Your task to perform on an android device: Go to ESPN.com Image 0: 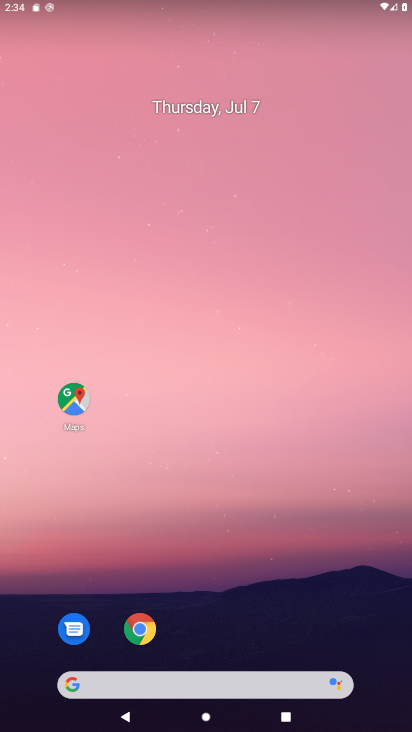
Step 0: click (132, 628)
Your task to perform on an android device: Go to ESPN.com Image 1: 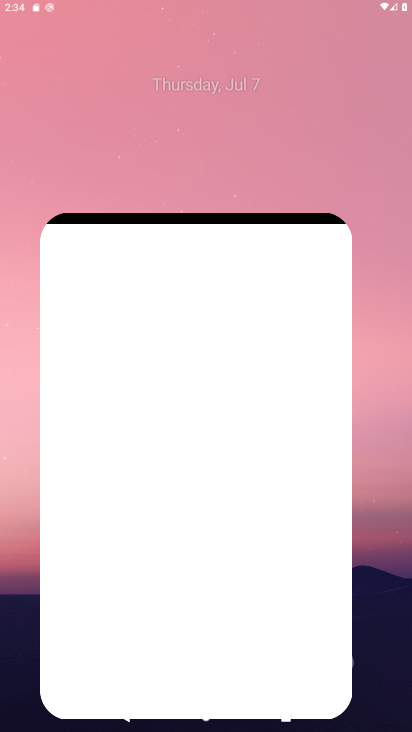
Step 1: click (132, 628)
Your task to perform on an android device: Go to ESPN.com Image 2: 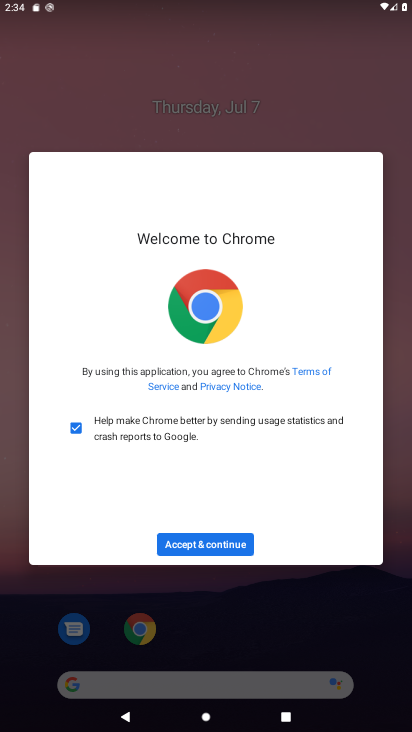
Step 2: click (242, 554)
Your task to perform on an android device: Go to ESPN.com Image 3: 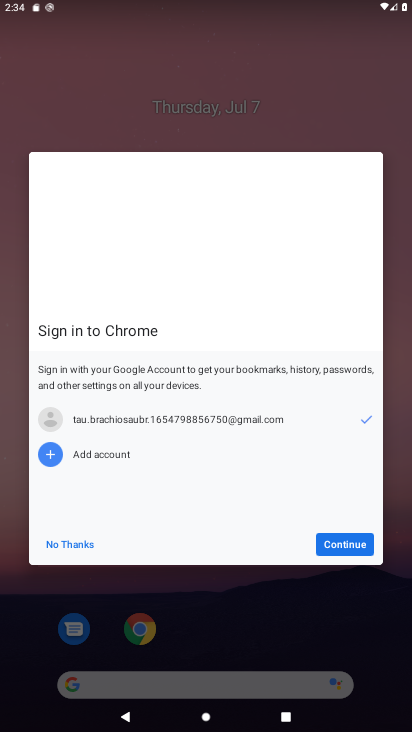
Step 3: click (353, 531)
Your task to perform on an android device: Go to ESPN.com Image 4: 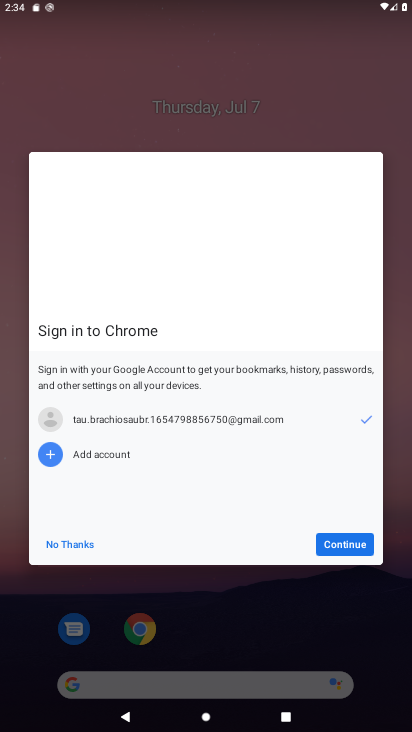
Step 4: click (353, 534)
Your task to perform on an android device: Go to ESPN.com Image 5: 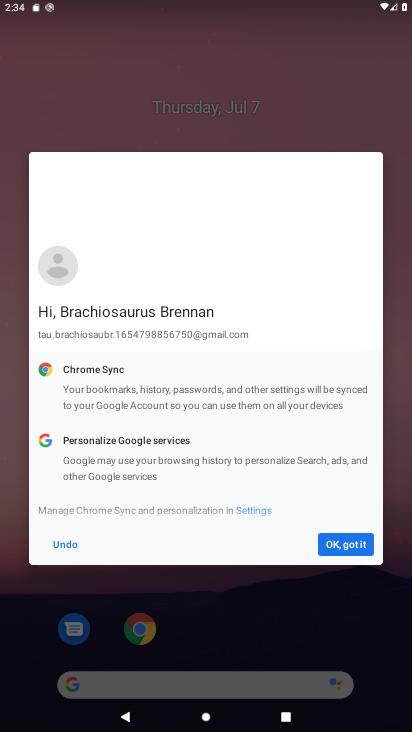
Step 5: click (353, 541)
Your task to perform on an android device: Go to ESPN.com Image 6: 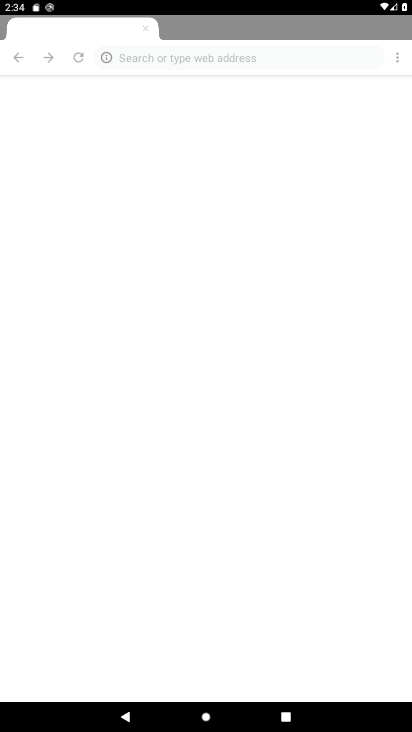
Step 6: click (353, 541)
Your task to perform on an android device: Go to ESPN.com Image 7: 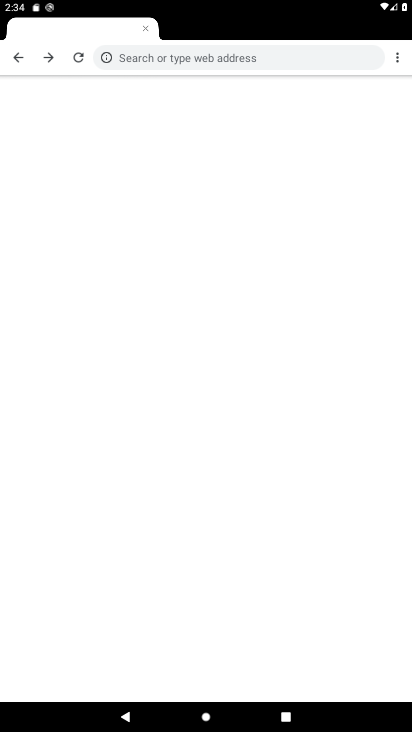
Step 7: click (353, 541)
Your task to perform on an android device: Go to ESPN.com Image 8: 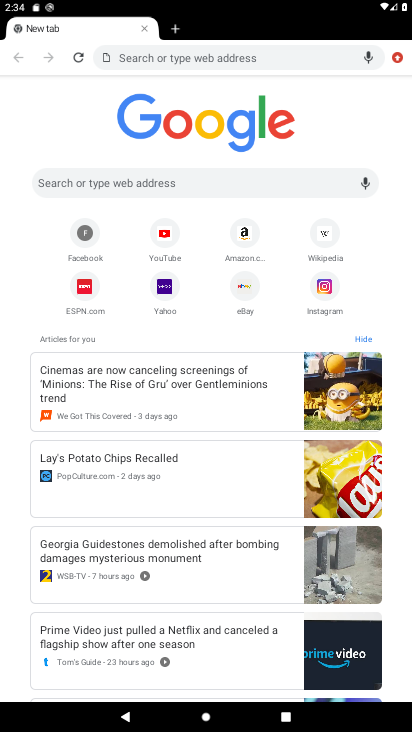
Step 8: click (79, 279)
Your task to perform on an android device: Go to ESPN.com Image 9: 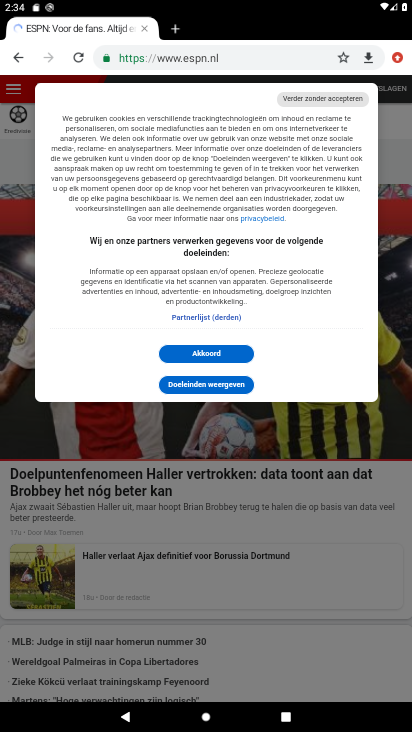
Step 9: task complete